Your task to perform on an android device: Open ESPN.com Image 0: 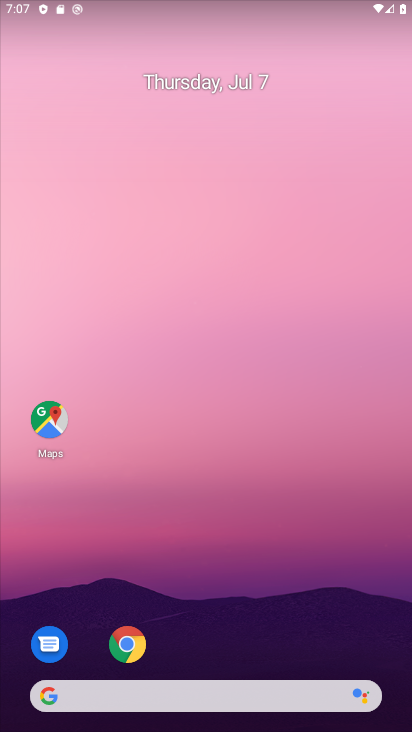
Step 0: click (112, 648)
Your task to perform on an android device: Open ESPN.com Image 1: 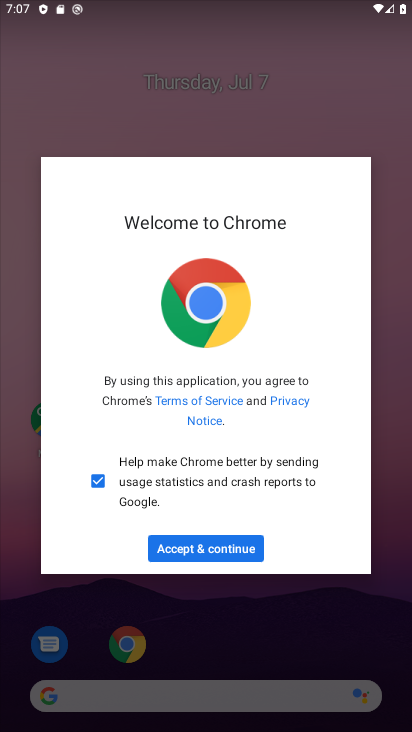
Step 1: click (198, 554)
Your task to perform on an android device: Open ESPN.com Image 2: 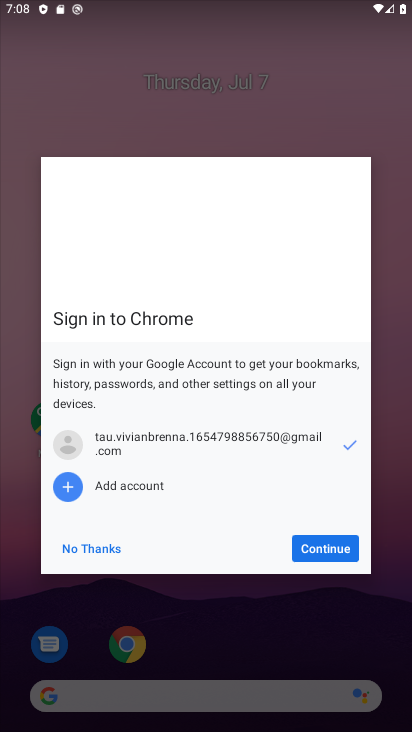
Step 2: click (332, 553)
Your task to perform on an android device: Open ESPN.com Image 3: 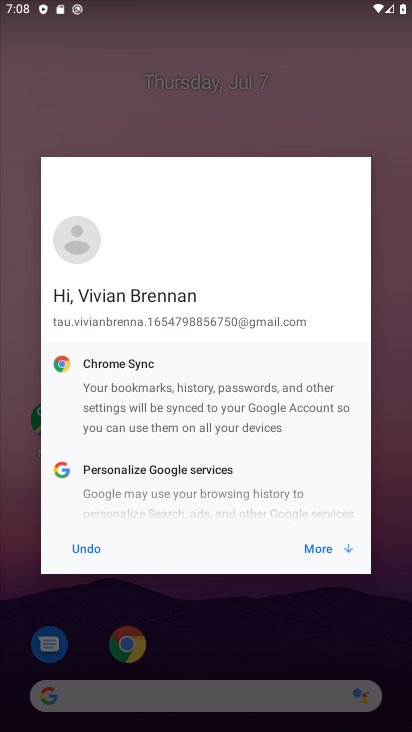
Step 3: click (332, 553)
Your task to perform on an android device: Open ESPN.com Image 4: 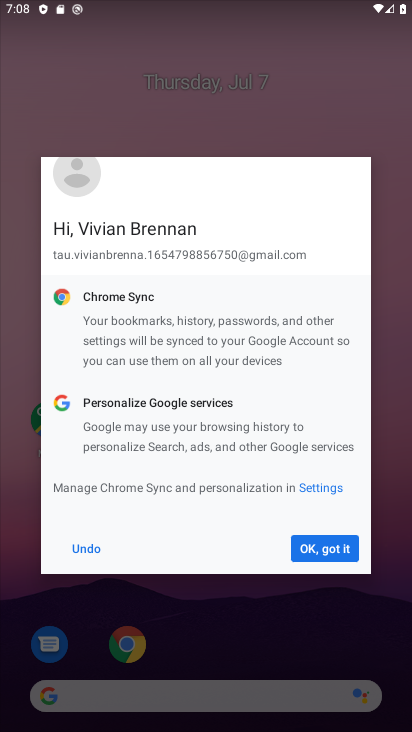
Step 4: click (332, 553)
Your task to perform on an android device: Open ESPN.com Image 5: 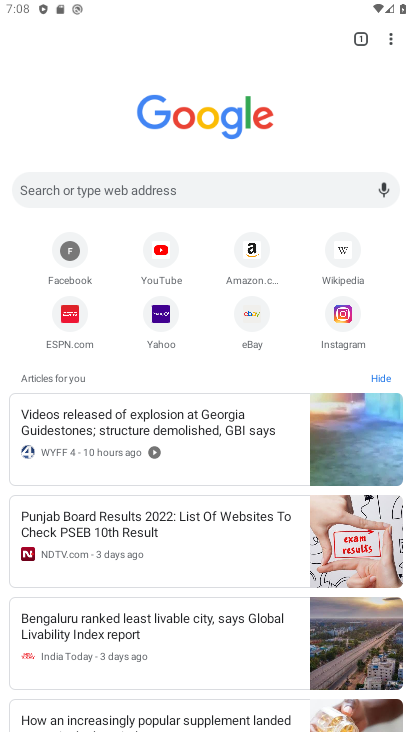
Step 5: click (78, 332)
Your task to perform on an android device: Open ESPN.com Image 6: 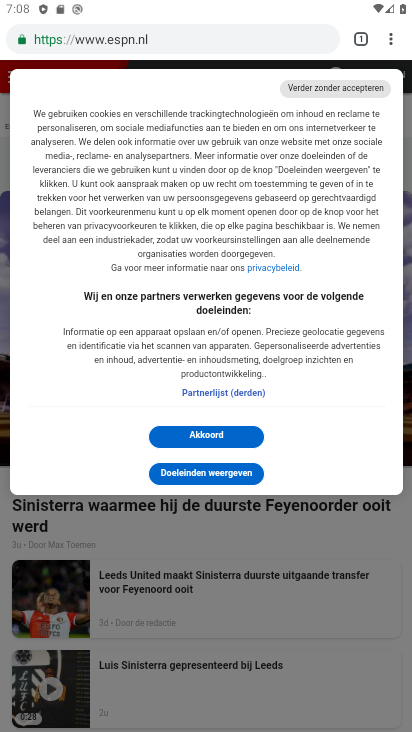
Step 6: task complete